Your task to perform on an android device: Go to ESPN.com Image 0: 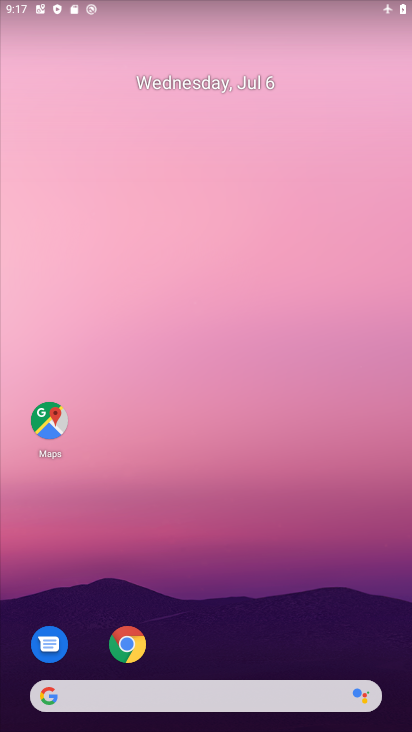
Step 0: click (142, 650)
Your task to perform on an android device: Go to ESPN.com Image 1: 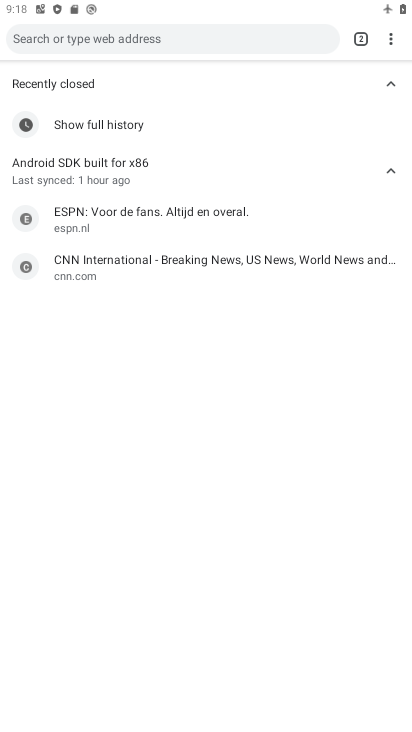
Step 1: click (362, 37)
Your task to perform on an android device: Go to ESPN.com Image 2: 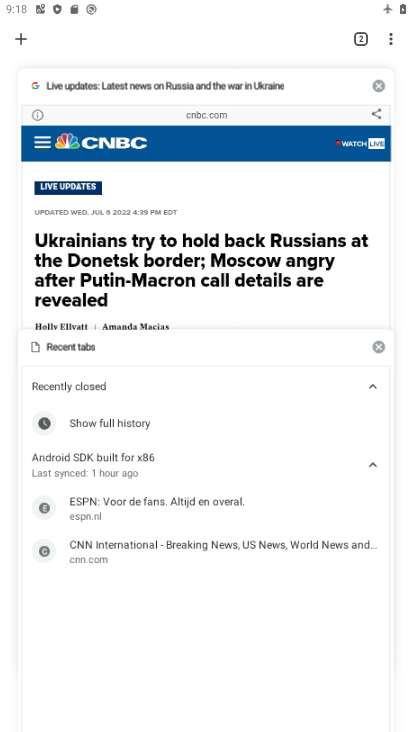
Step 2: click (15, 32)
Your task to perform on an android device: Go to ESPN.com Image 3: 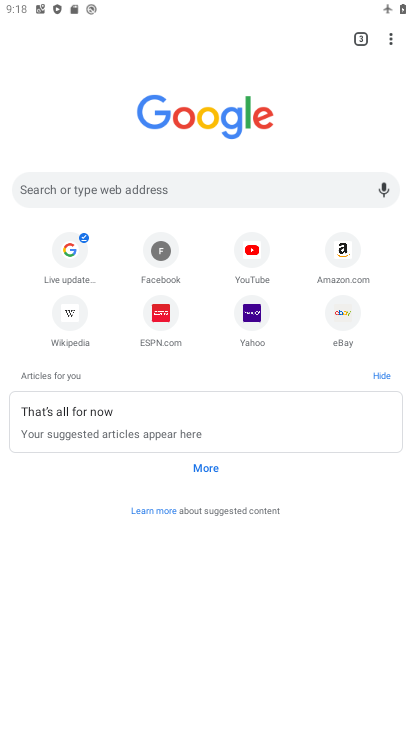
Step 3: click (147, 328)
Your task to perform on an android device: Go to ESPN.com Image 4: 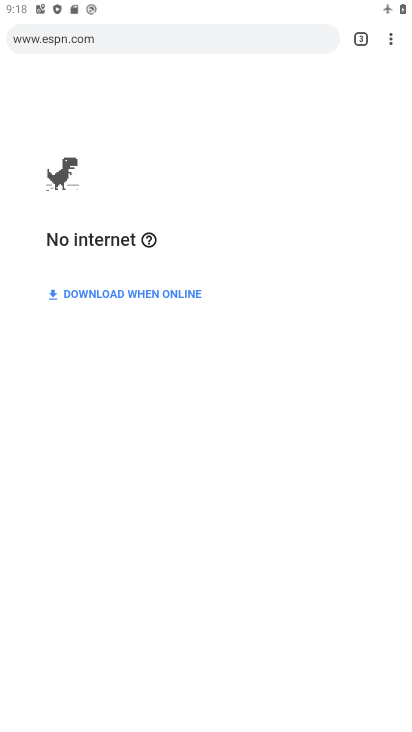
Step 4: task complete